Your task to perform on an android device: turn notification dots on Image 0: 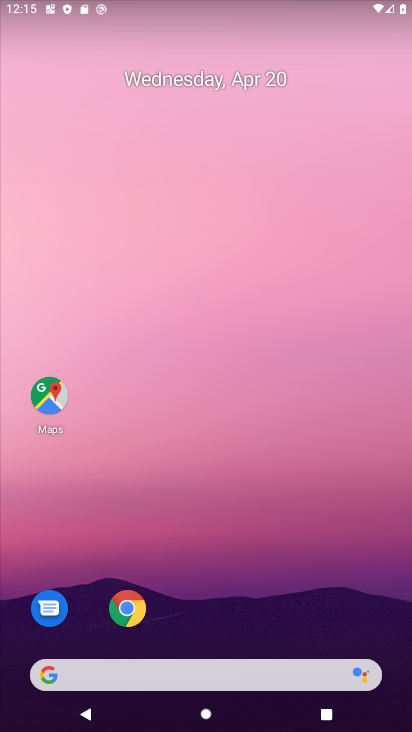
Step 0: drag from (222, 624) to (232, 1)
Your task to perform on an android device: turn notification dots on Image 1: 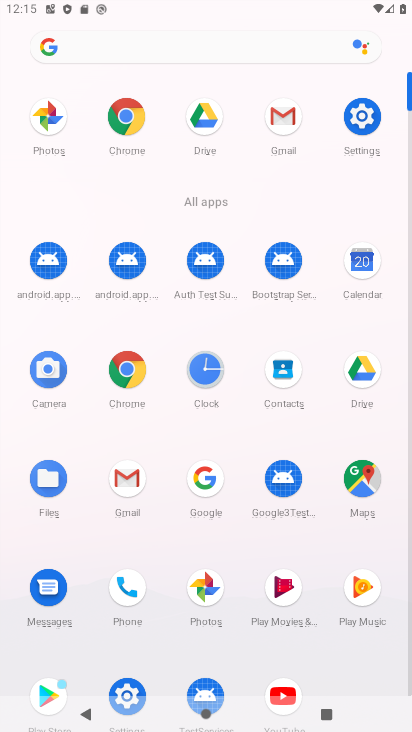
Step 1: click (370, 112)
Your task to perform on an android device: turn notification dots on Image 2: 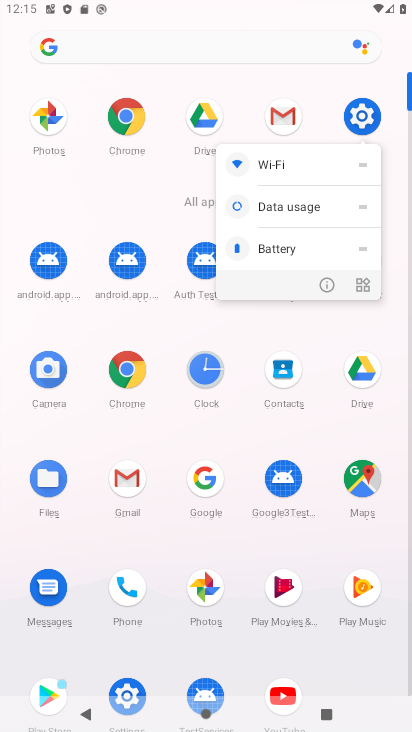
Step 2: click (361, 119)
Your task to perform on an android device: turn notification dots on Image 3: 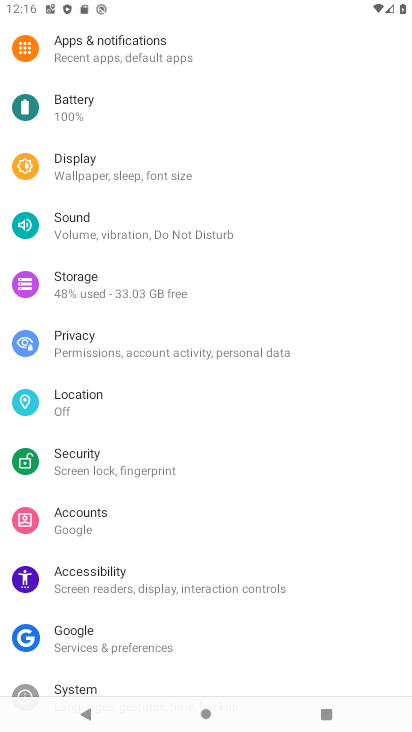
Step 3: click (123, 40)
Your task to perform on an android device: turn notification dots on Image 4: 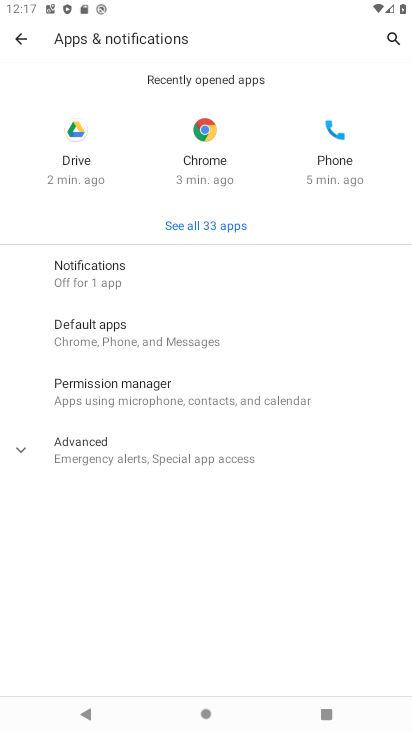
Step 4: click (131, 280)
Your task to perform on an android device: turn notification dots on Image 5: 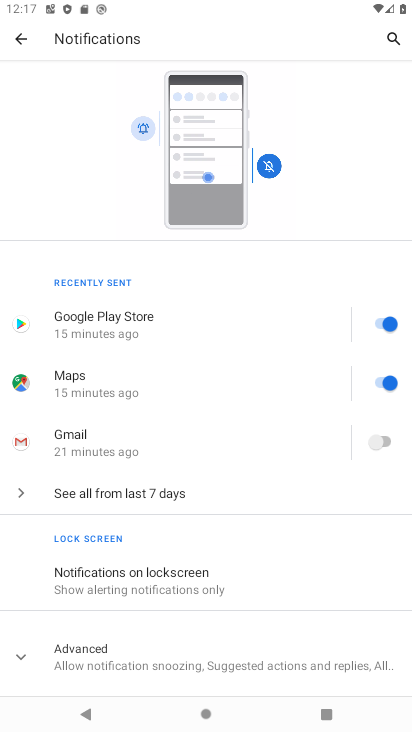
Step 5: drag from (264, 458) to (267, 168)
Your task to perform on an android device: turn notification dots on Image 6: 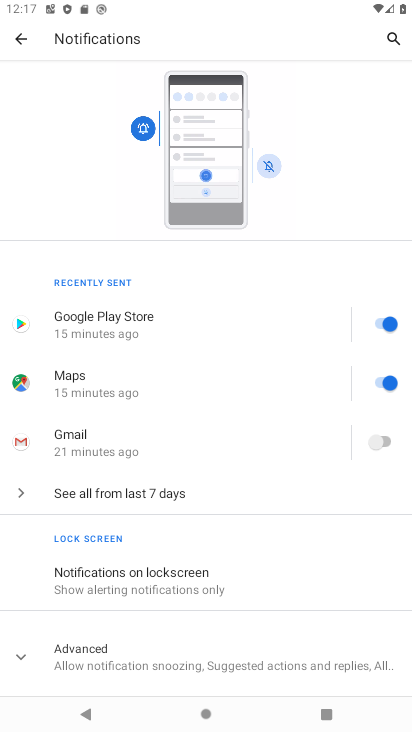
Step 6: click (216, 577)
Your task to perform on an android device: turn notification dots on Image 7: 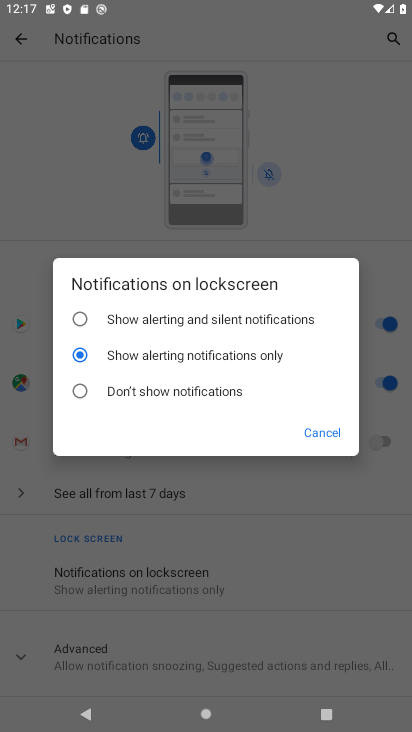
Step 7: click (157, 581)
Your task to perform on an android device: turn notification dots on Image 8: 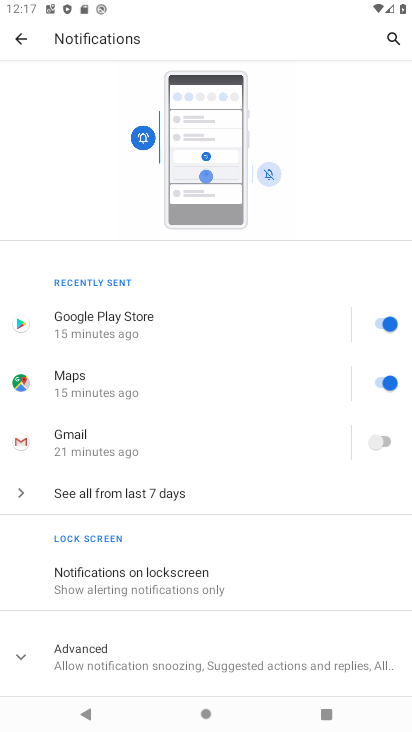
Step 8: click (319, 434)
Your task to perform on an android device: turn notification dots on Image 9: 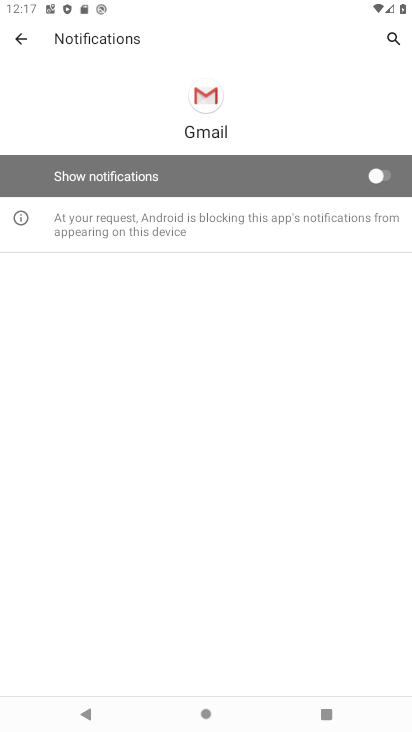
Step 9: click (196, 655)
Your task to perform on an android device: turn notification dots on Image 10: 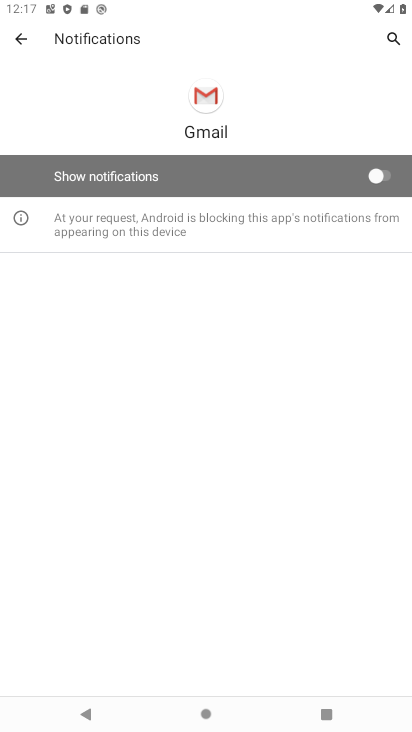
Step 10: click (22, 24)
Your task to perform on an android device: turn notification dots on Image 11: 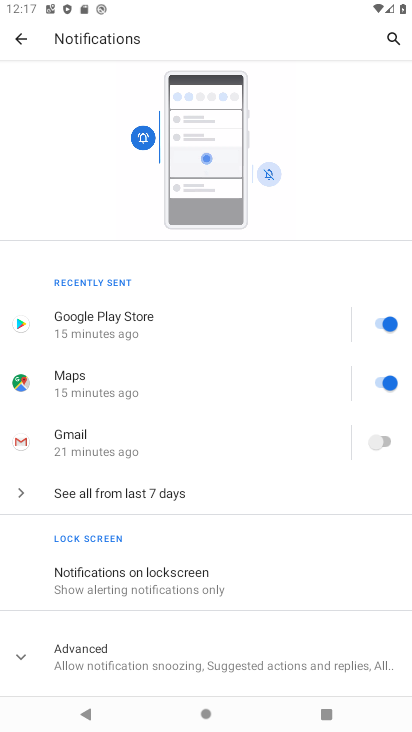
Step 11: click (119, 650)
Your task to perform on an android device: turn notification dots on Image 12: 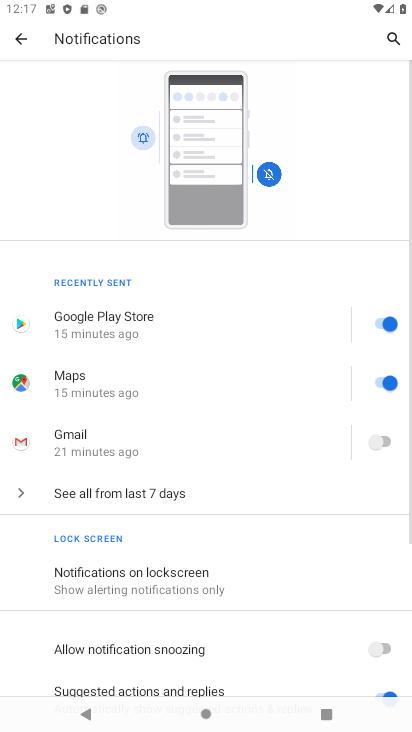
Step 12: task complete